Your task to perform on an android device: Go to Amazon Image 0: 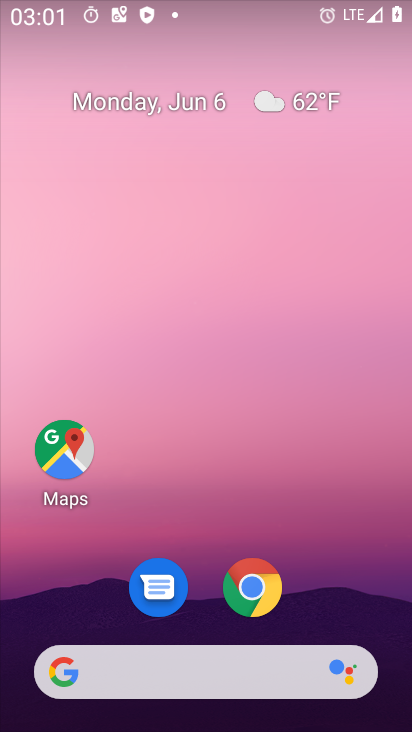
Step 0: drag from (320, 552) to (252, 24)
Your task to perform on an android device: Go to Amazon Image 1: 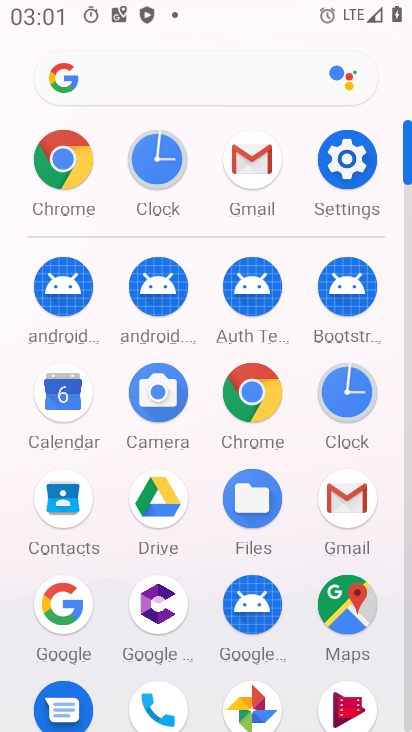
Step 1: drag from (0, 607) to (33, 271)
Your task to perform on an android device: Go to Amazon Image 2: 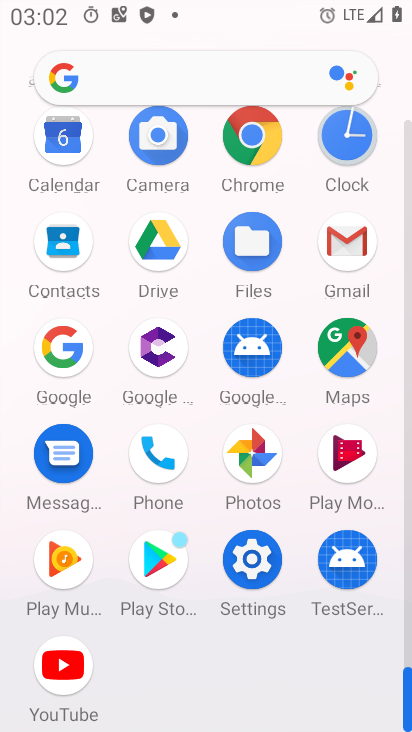
Step 2: click (252, 133)
Your task to perform on an android device: Go to Amazon Image 3: 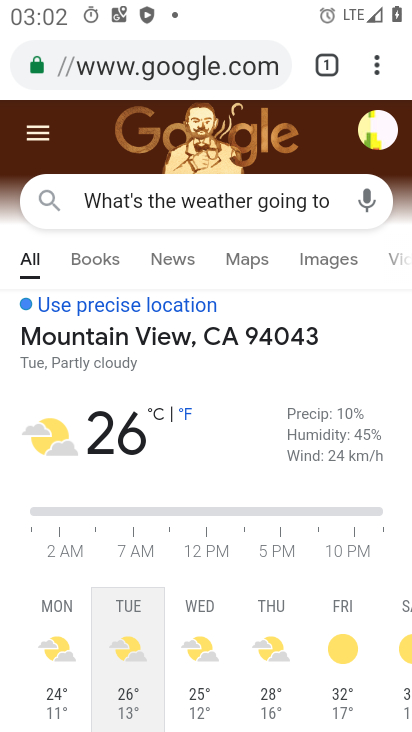
Step 3: click (214, 74)
Your task to perform on an android device: Go to Amazon Image 4: 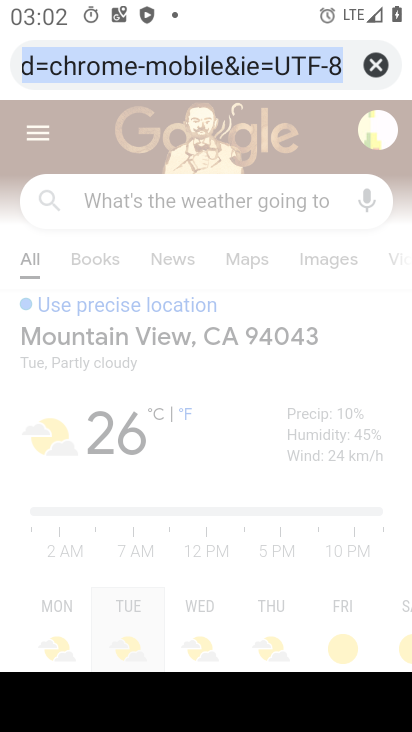
Step 4: click (368, 58)
Your task to perform on an android device: Go to Amazon Image 5: 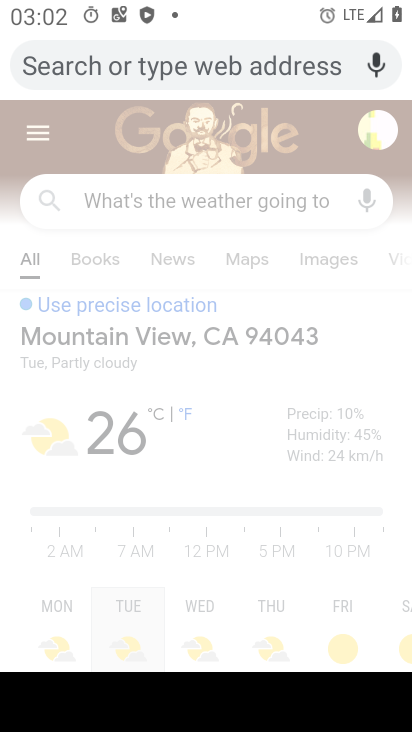
Step 5: type "Amazon"
Your task to perform on an android device: Go to Amazon Image 6: 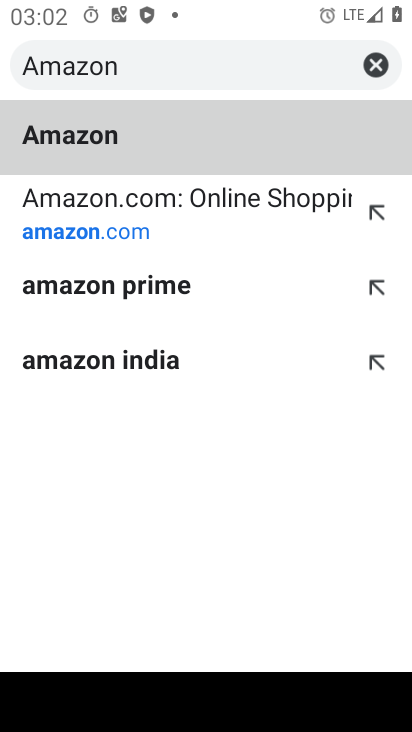
Step 6: click (180, 193)
Your task to perform on an android device: Go to Amazon Image 7: 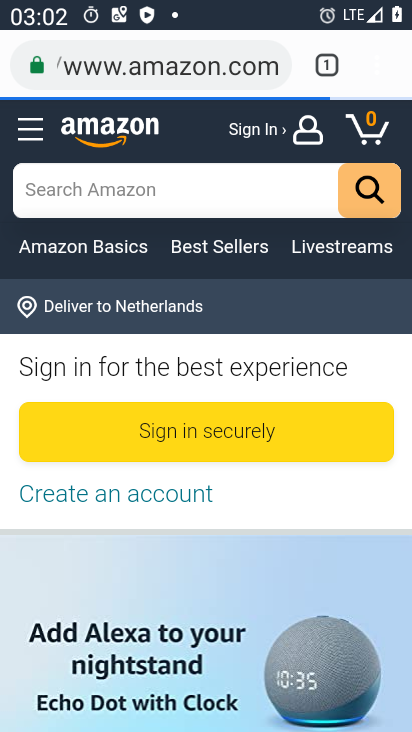
Step 7: task complete